Your task to perform on an android device: turn pop-ups off in chrome Image 0: 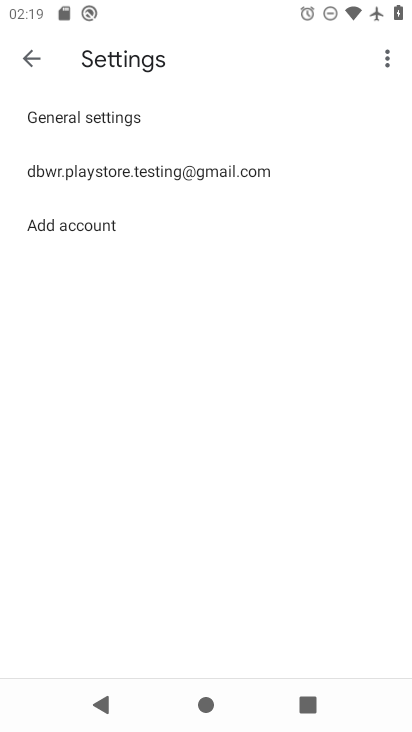
Step 0: press home button
Your task to perform on an android device: turn pop-ups off in chrome Image 1: 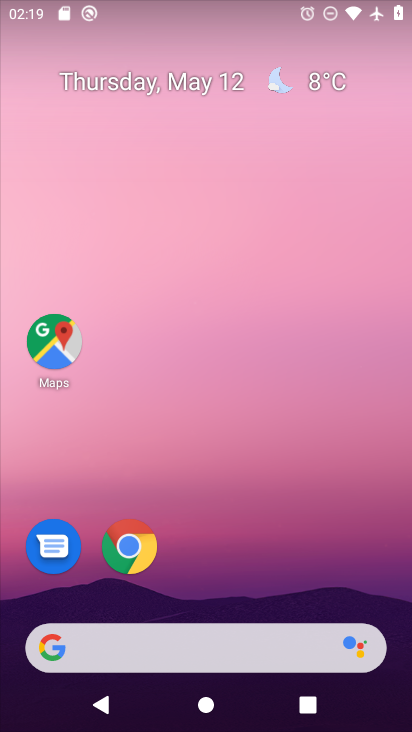
Step 1: drag from (177, 650) to (297, 83)
Your task to perform on an android device: turn pop-ups off in chrome Image 2: 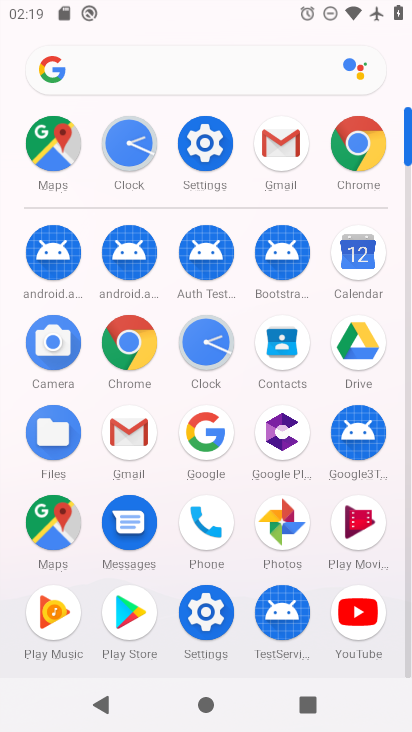
Step 2: click (359, 145)
Your task to perform on an android device: turn pop-ups off in chrome Image 3: 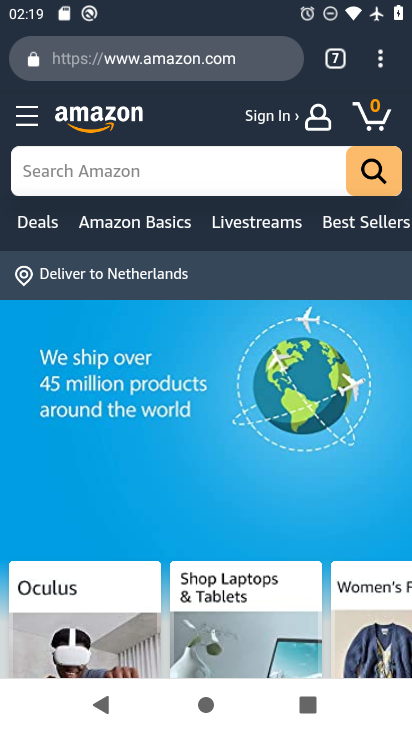
Step 3: drag from (381, 66) to (264, 573)
Your task to perform on an android device: turn pop-ups off in chrome Image 4: 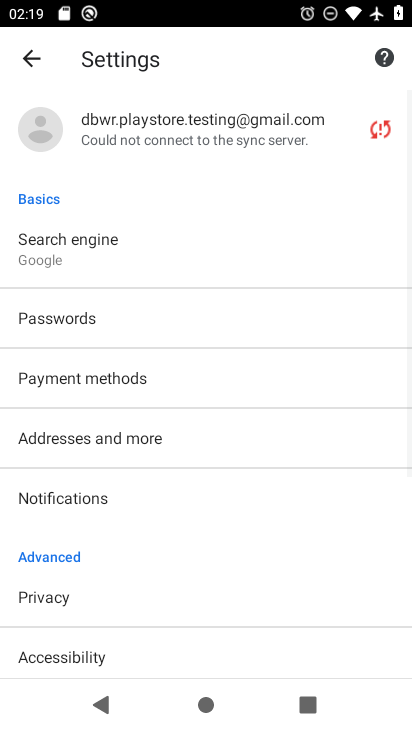
Step 4: drag from (134, 602) to (312, 159)
Your task to perform on an android device: turn pop-ups off in chrome Image 5: 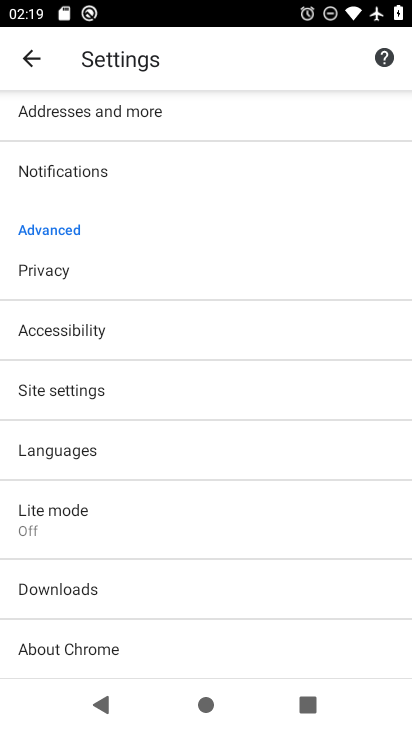
Step 5: click (109, 400)
Your task to perform on an android device: turn pop-ups off in chrome Image 6: 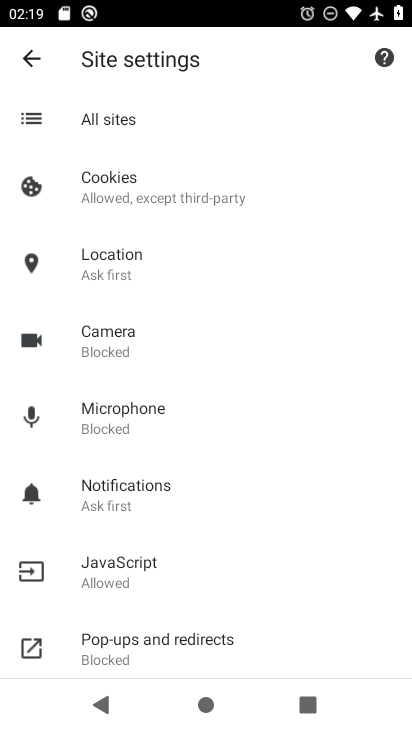
Step 6: click (148, 638)
Your task to perform on an android device: turn pop-ups off in chrome Image 7: 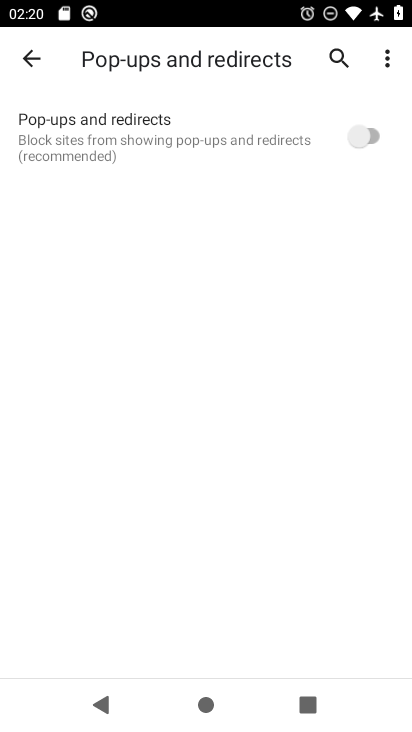
Step 7: task complete